Your task to perform on an android device: Go to Amazon Image 0: 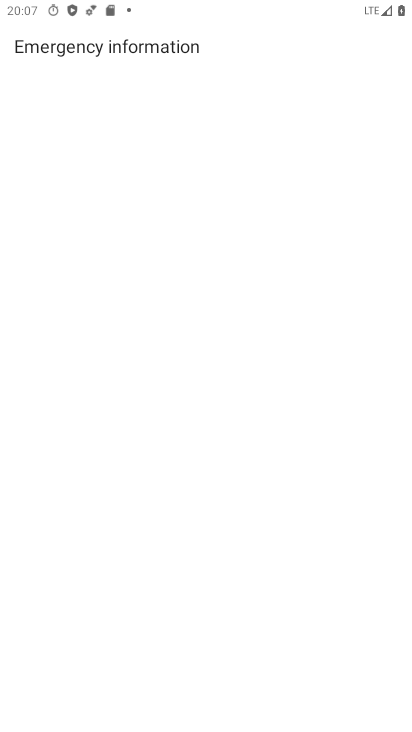
Step 0: drag from (226, 629) to (215, 76)
Your task to perform on an android device: Go to Amazon Image 1: 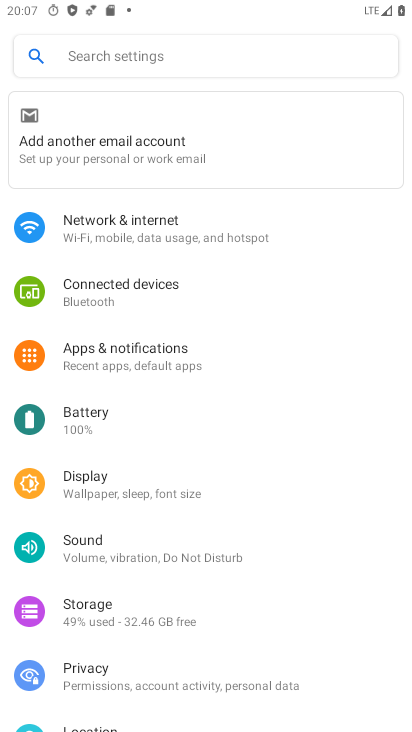
Step 1: press home button
Your task to perform on an android device: Go to Amazon Image 2: 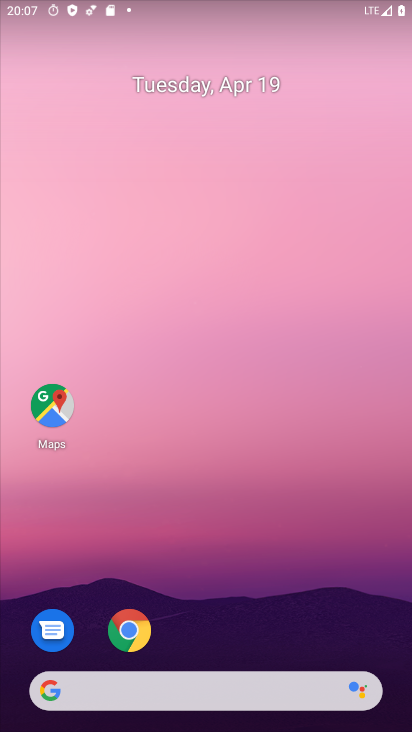
Step 2: click (143, 628)
Your task to perform on an android device: Go to Amazon Image 3: 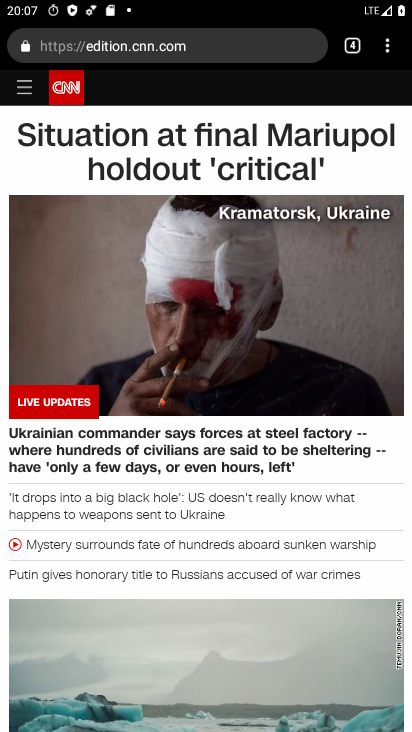
Step 3: click (348, 45)
Your task to perform on an android device: Go to Amazon Image 4: 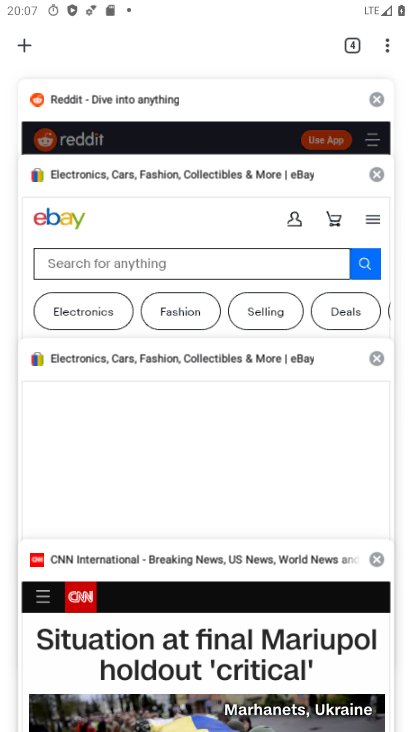
Step 4: click (29, 45)
Your task to perform on an android device: Go to Amazon Image 5: 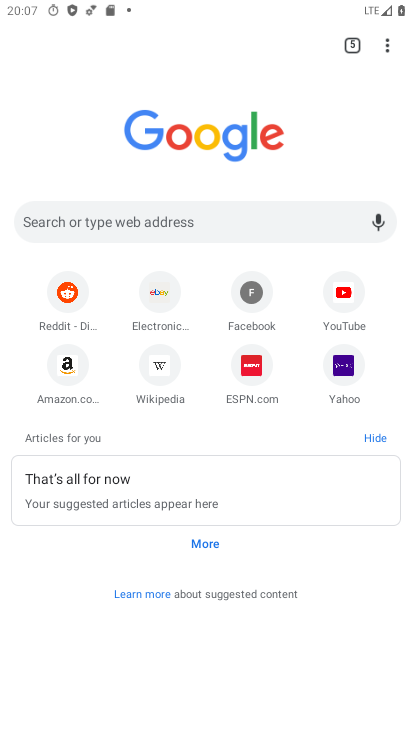
Step 5: click (60, 364)
Your task to perform on an android device: Go to Amazon Image 6: 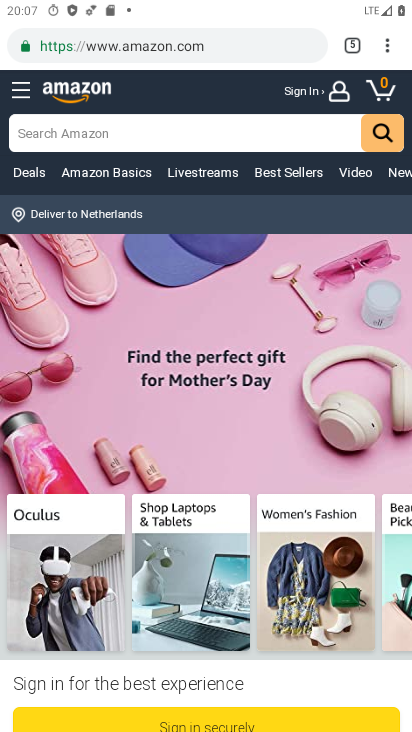
Step 6: task complete